Your task to perform on an android device: see tabs open on other devices in the chrome app Image 0: 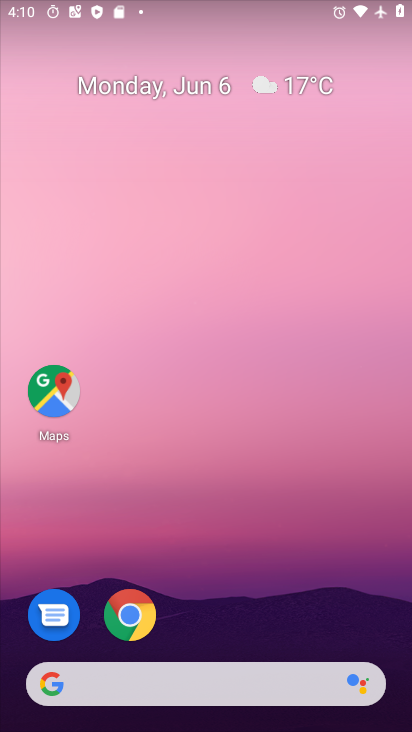
Step 0: drag from (274, 585) to (147, 10)
Your task to perform on an android device: see tabs open on other devices in the chrome app Image 1: 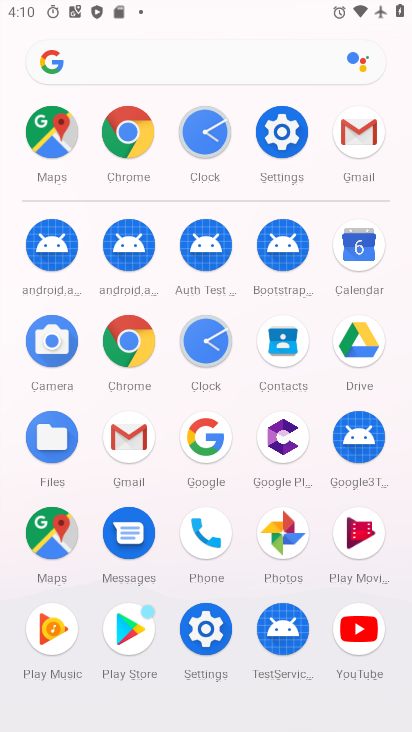
Step 1: click (129, 333)
Your task to perform on an android device: see tabs open on other devices in the chrome app Image 2: 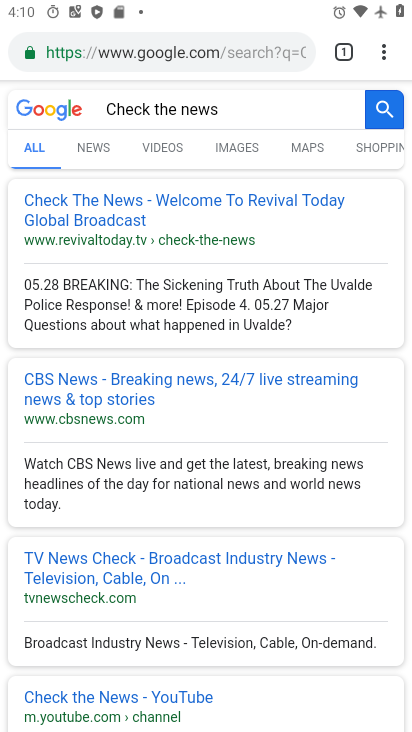
Step 2: task complete